Your task to perform on an android device: Open wifi settings Image 0: 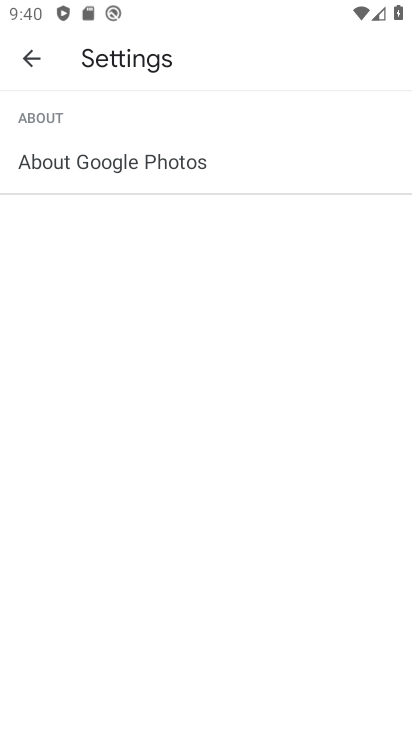
Step 0: press back button
Your task to perform on an android device: Open wifi settings Image 1: 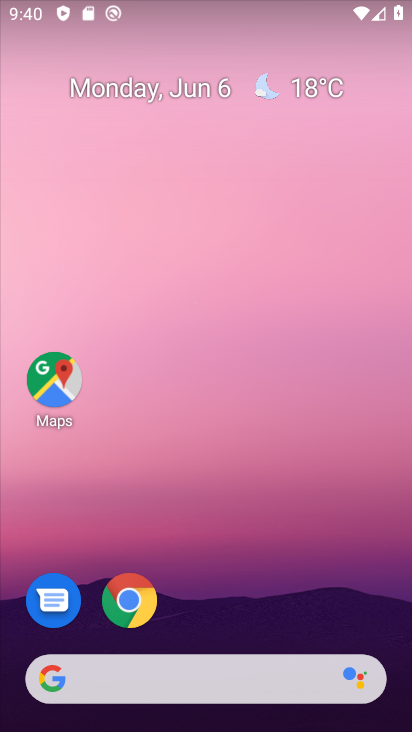
Step 1: drag from (241, 568) to (234, 8)
Your task to perform on an android device: Open wifi settings Image 2: 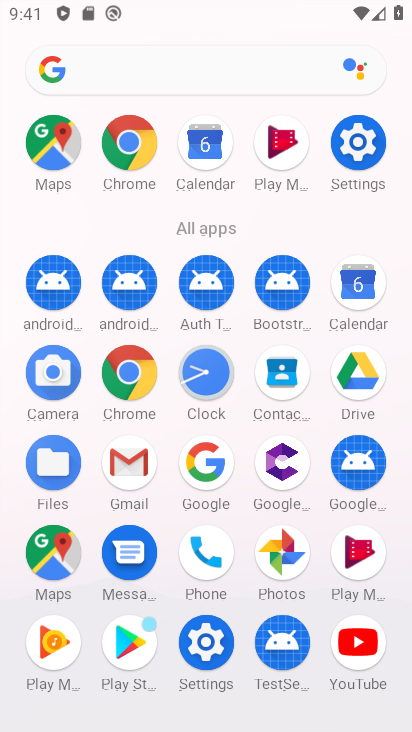
Step 2: click (356, 139)
Your task to perform on an android device: Open wifi settings Image 3: 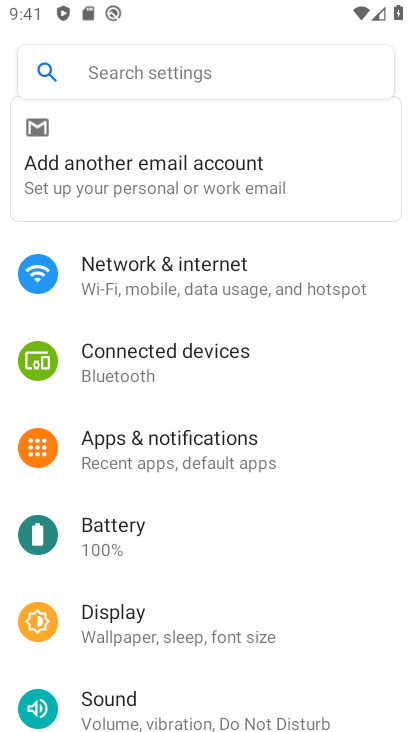
Step 3: click (147, 288)
Your task to perform on an android device: Open wifi settings Image 4: 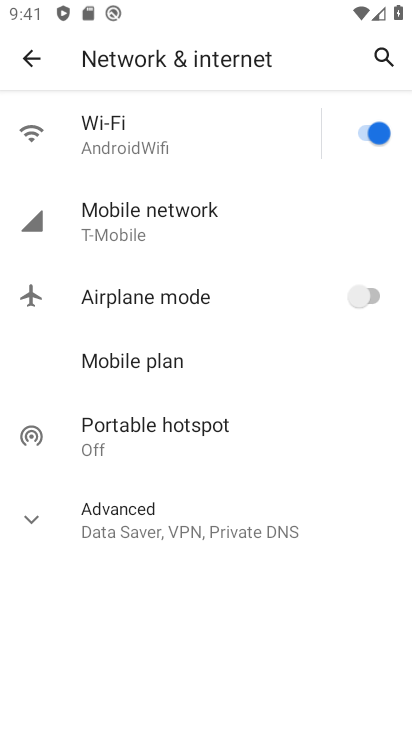
Step 4: click (23, 534)
Your task to perform on an android device: Open wifi settings Image 5: 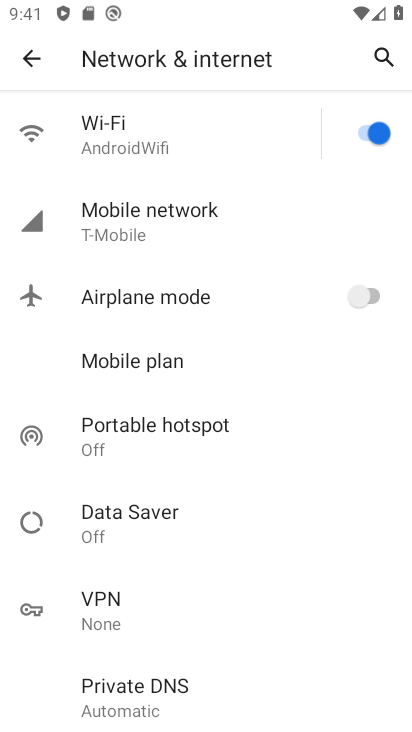
Step 5: click (148, 146)
Your task to perform on an android device: Open wifi settings Image 6: 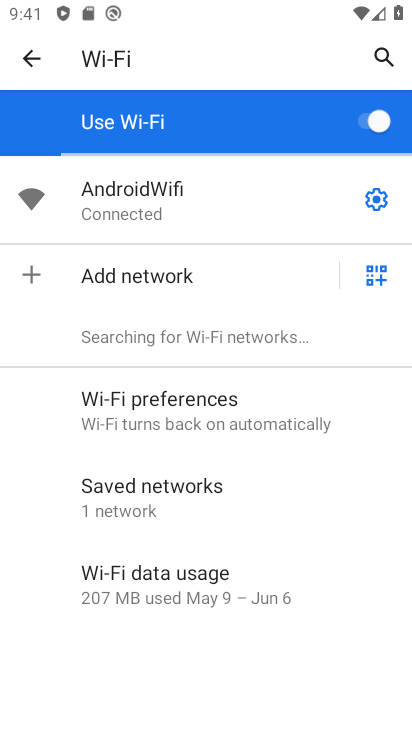
Step 6: task complete